Your task to perform on an android device: change the clock display to show seconds Image 0: 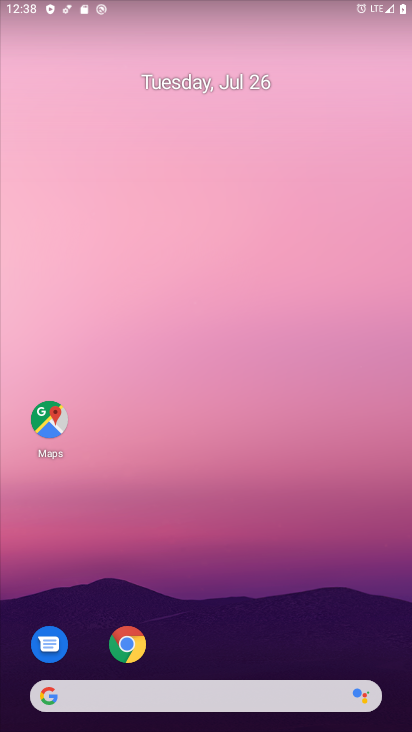
Step 0: drag from (204, 718) to (204, 545)
Your task to perform on an android device: change the clock display to show seconds Image 1: 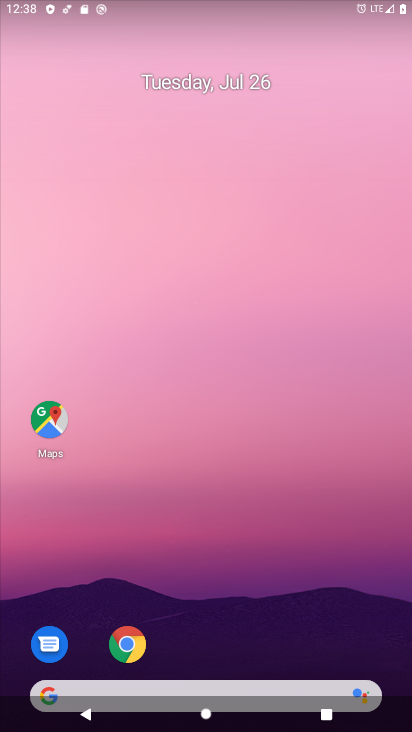
Step 1: drag from (233, 619) to (270, 0)
Your task to perform on an android device: change the clock display to show seconds Image 2: 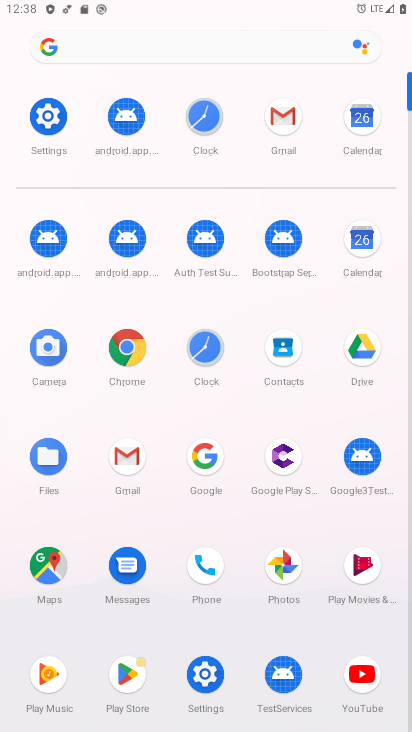
Step 2: click (227, 343)
Your task to perform on an android device: change the clock display to show seconds Image 3: 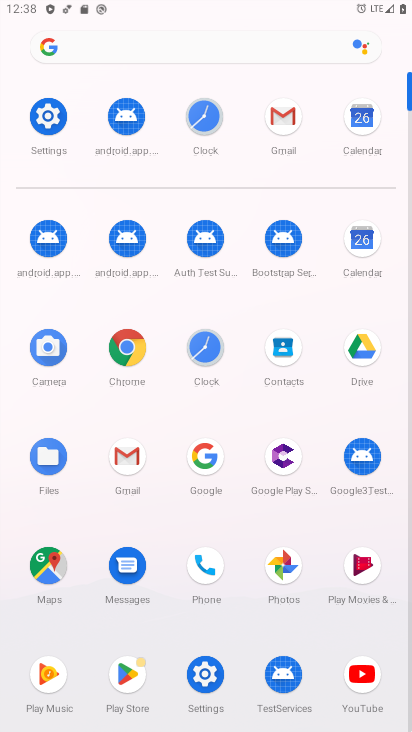
Step 3: click (227, 343)
Your task to perform on an android device: change the clock display to show seconds Image 4: 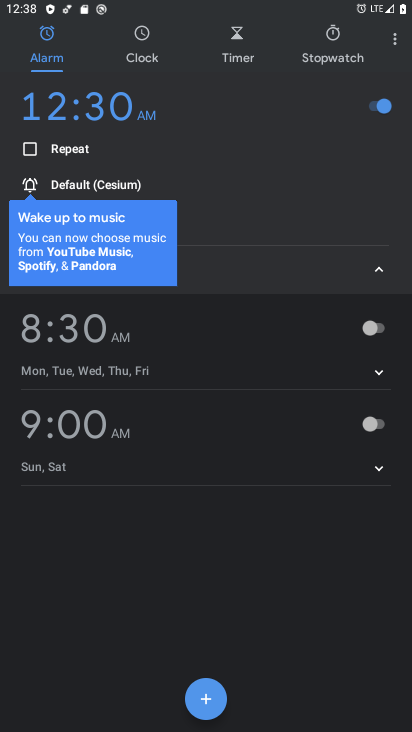
Step 4: click (392, 43)
Your task to perform on an android device: change the clock display to show seconds Image 5: 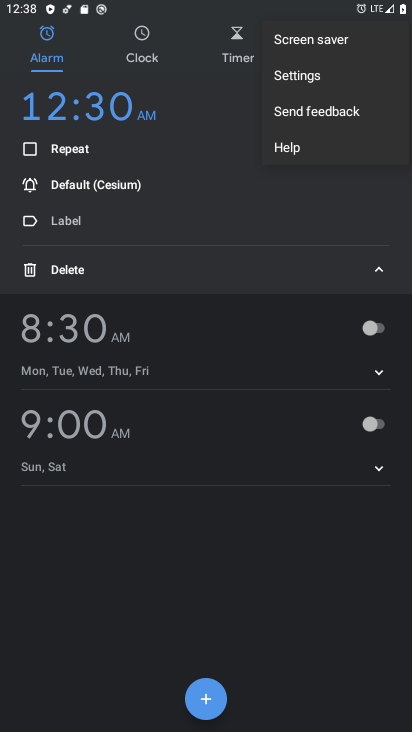
Step 5: click (328, 74)
Your task to perform on an android device: change the clock display to show seconds Image 6: 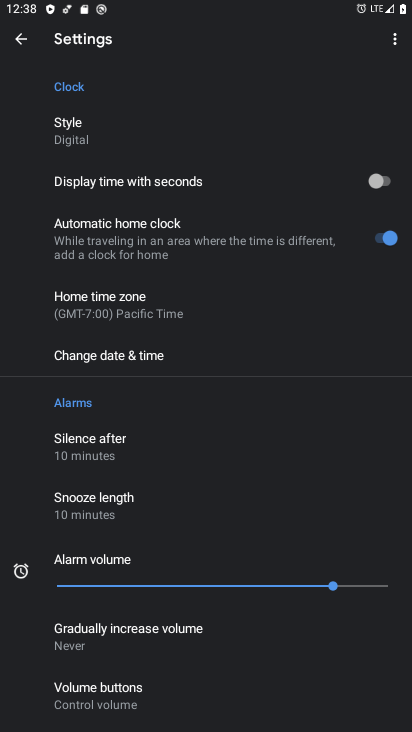
Step 6: click (374, 184)
Your task to perform on an android device: change the clock display to show seconds Image 7: 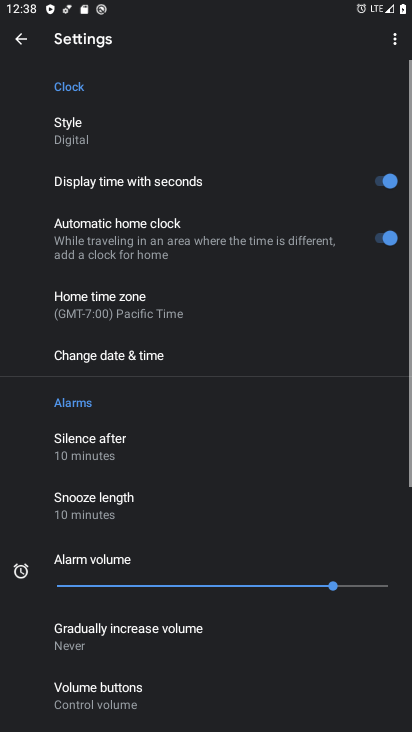
Step 7: task complete